Your task to perform on an android device: Search for vegetarian restaurants on Maps Image 0: 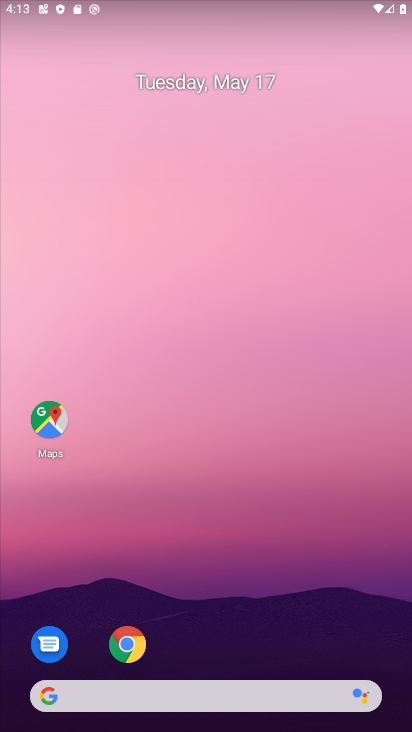
Step 0: click (61, 415)
Your task to perform on an android device: Search for vegetarian restaurants on Maps Image 1: 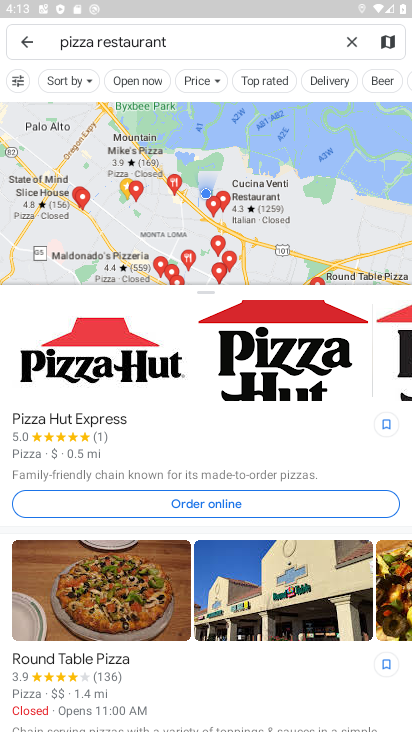
Step 1: click (355, 38)
Your task to perform on an android device: Search for vegetarian restaurants on Maps Image 2: 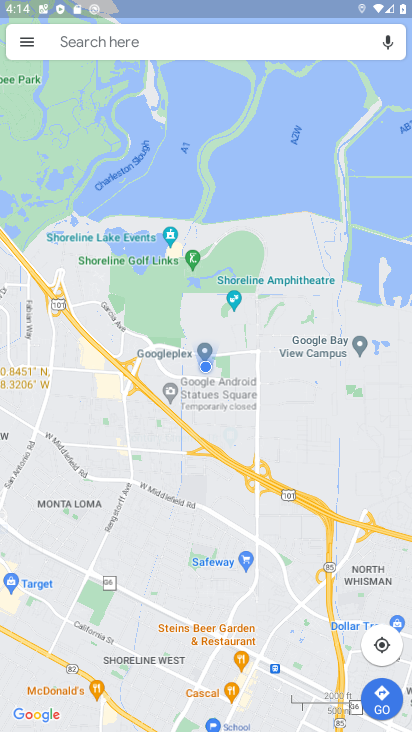
Step 2: click (261, 39)
Your task to perform on an android device: Search for vegetarian restaurants on Maps Image 3: 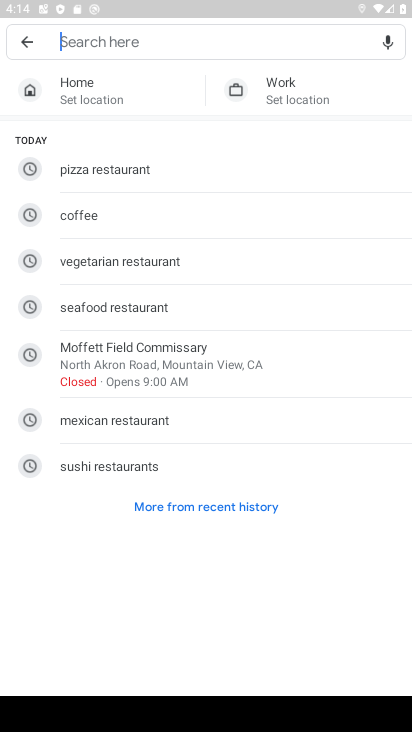
Step 3: click (207, 248)
Your task to perform on an android device: Search for vegetarian restaurants on Maps Image 4: 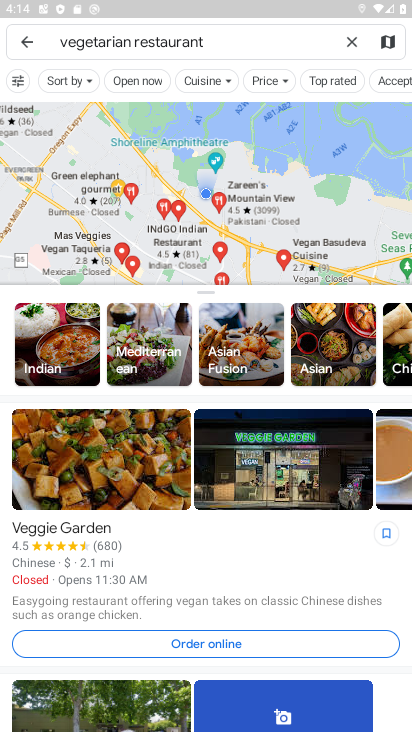
Step 4: task complete